Your task to perform on an android device: Open the map Image 0: 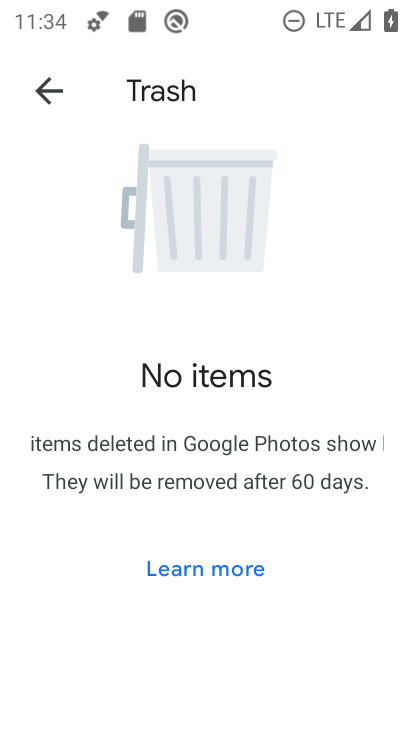
Step 0: press home button
Your task to perform on an android device: Open the map Image 1: 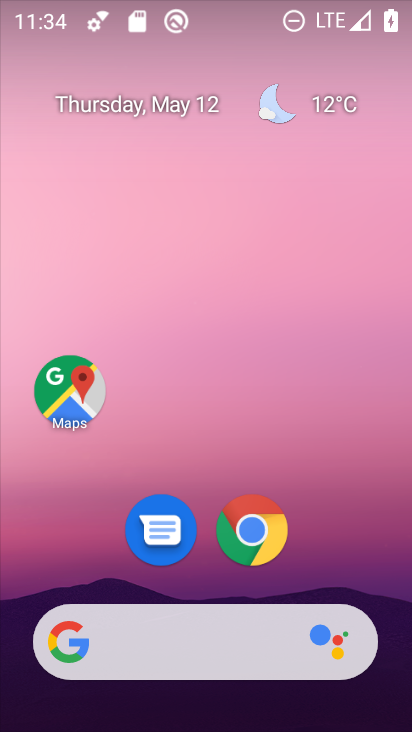
Step 1: click (79, 411)
Your task to perform on an android device: Open the map Image 2: 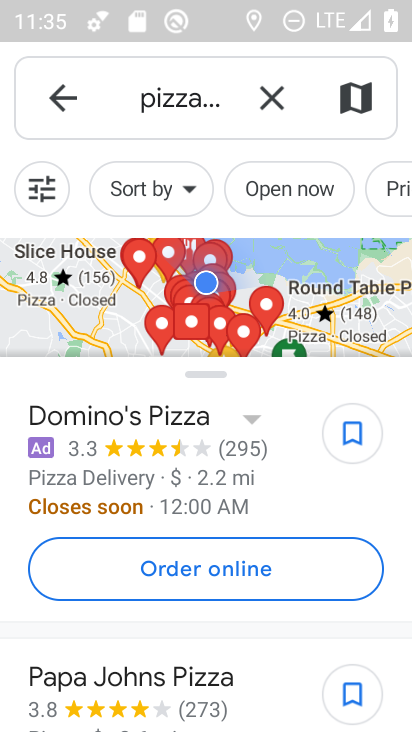
Step 2: task complete